Your task to perform on an android device: open a bookmark in the chrome app Image 0: 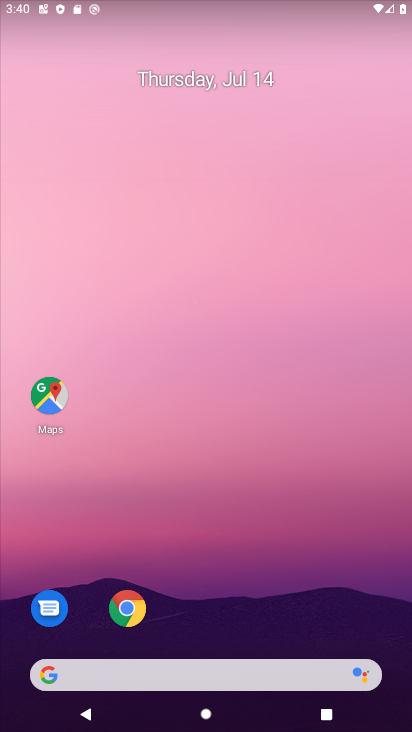
Step 0: click (130, 614)
Your task to perform on an android device: open a bookmark in the chrome app Image 1: 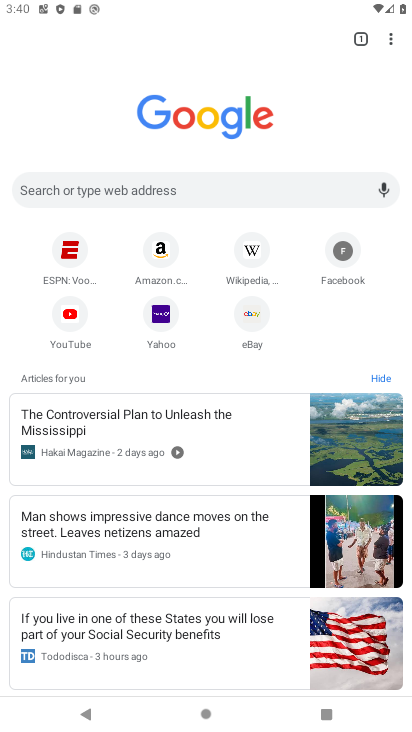
Step 1: click (394, 39)
Your task to perform on an android device: open a bookmark in the chrome app Image 2: 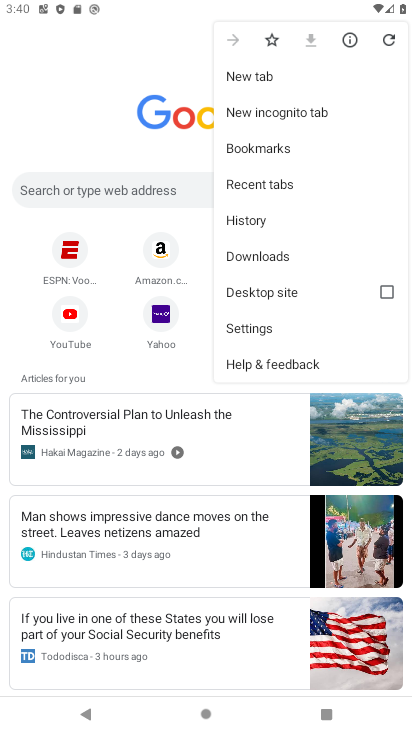
Step 2: click (270, 154)
Your task to perform on an android device: open a bookmark in the chrome app Image 3: 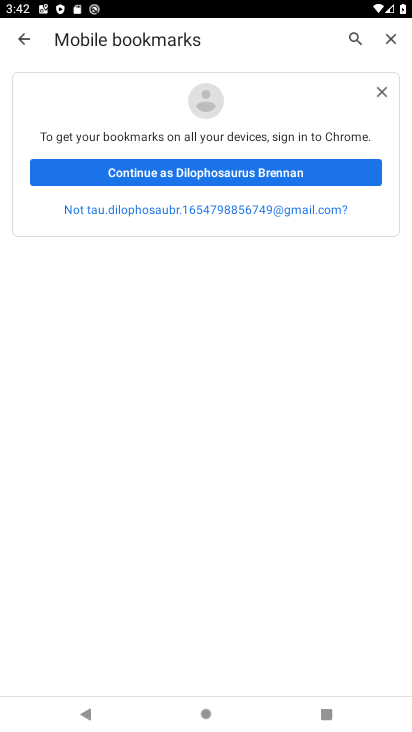
Step 3: task complete